Your task to perform on an android device: read, delete, or share a saved page in the chrome app Image 0: 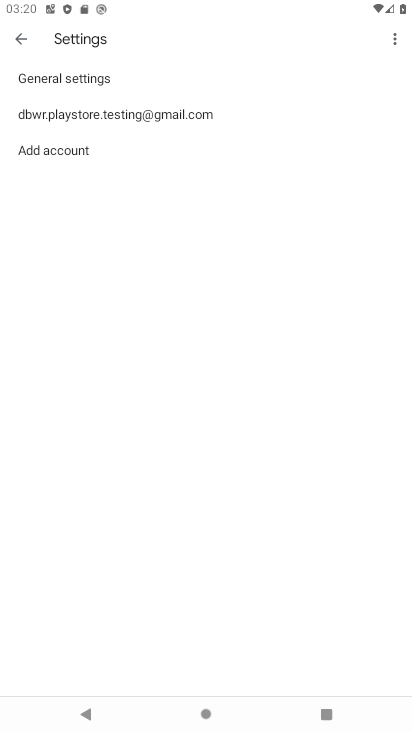
Step 0: press back button
Your task to perform on an android device: read, delete, or share a saved page in the chrome app Image 1: 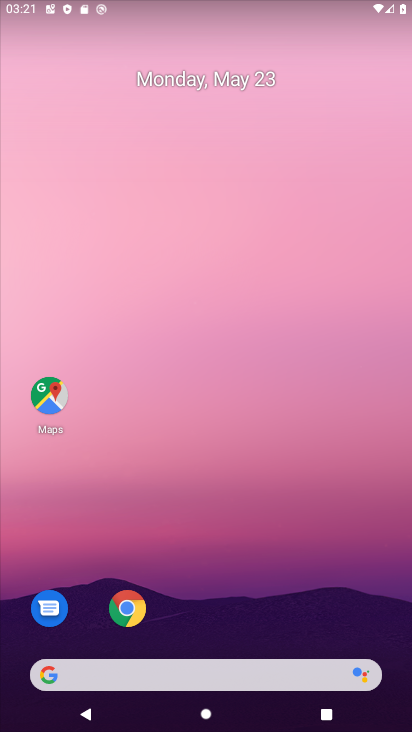
Step 1: click (125, 608)
Your task to perform on an android device: read, delete, or share a saved page in the chrome app Image 2: 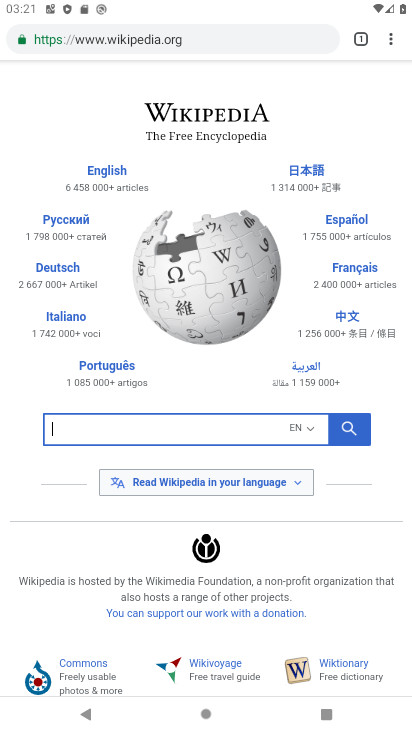
Step 2: click (391, 38)
Your task to perform on an android device: read, delete, or share a saved page in the chrome app Image 3: 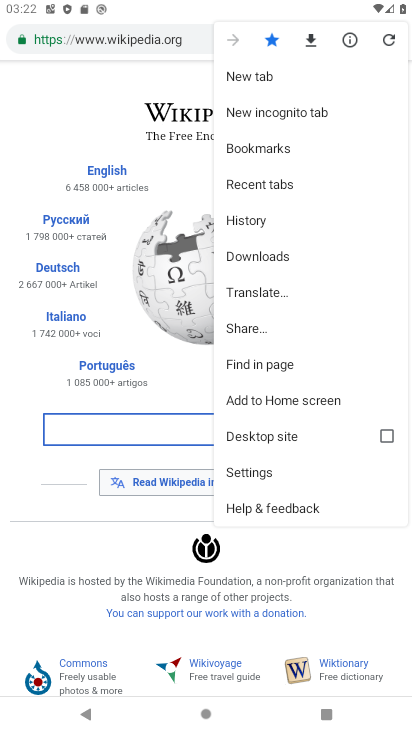
Step 3: click (254, 257)
Your task to perform on an android device: read, delete, or share a saved page in the chrome app Image 4: 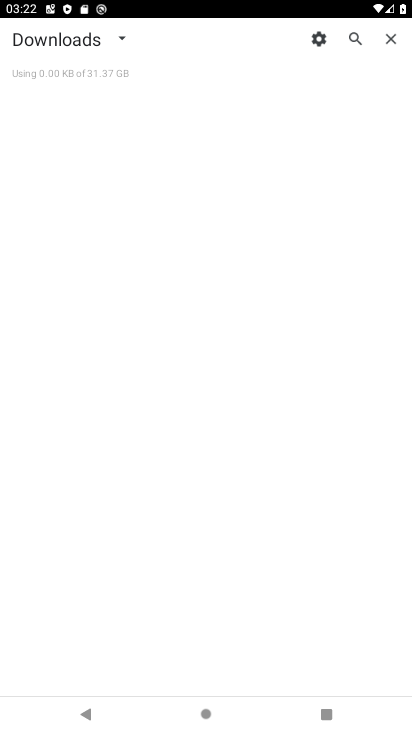
Step 4: click (111, 38)
Your task to perform on an android device: read, delete, or share a saved page in the chrome app Image 5: 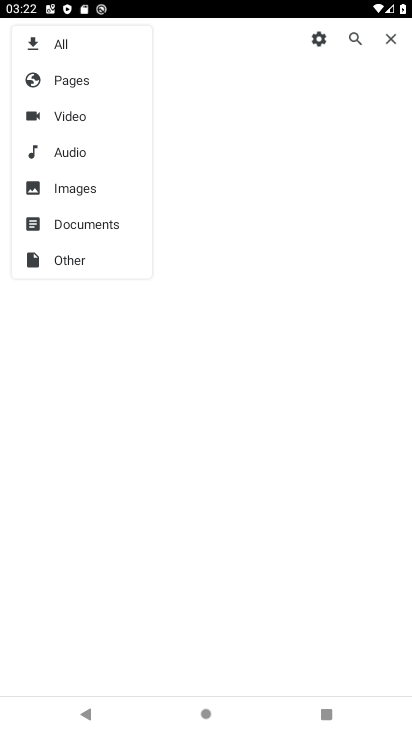
Step 5: click (73, 89)
Your task to perform on an android device: read, delete, or share a saved page in the chrome app Image 6: 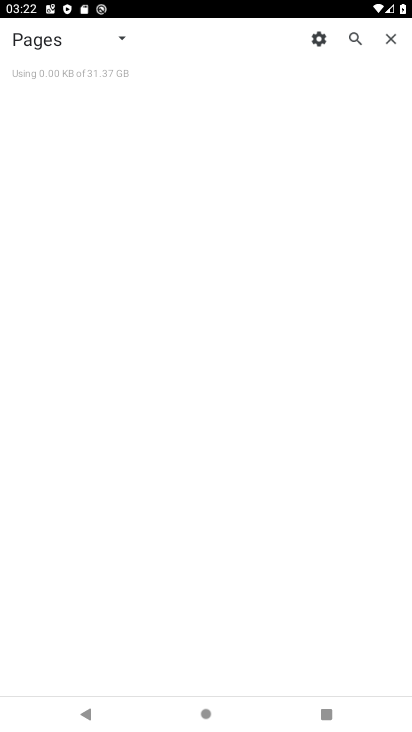
Step 6: task complete